Your task to perform on an android device: turn off improve location accuracy Image 0: 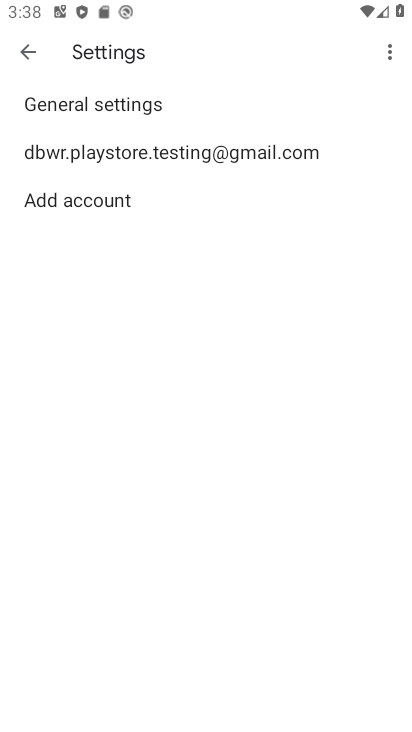
Step 0: press home button
Your task to perform on an android device: turn off improve location accuracy Image 1: 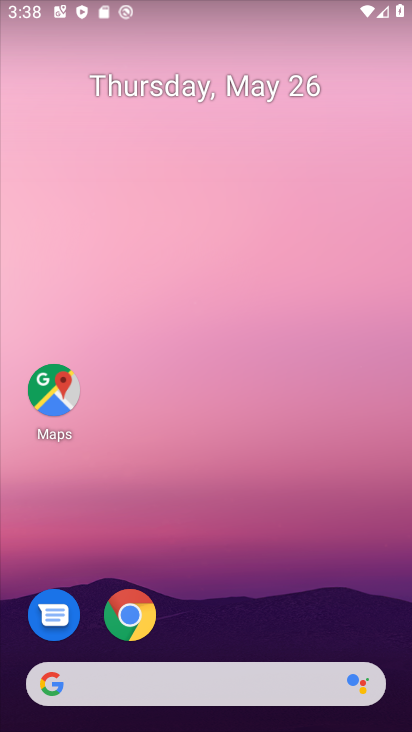
Step 1: drag from (347, 621) to (325, 5)
Your task to perform on an android device: turn off improve location accuracy Image 2: 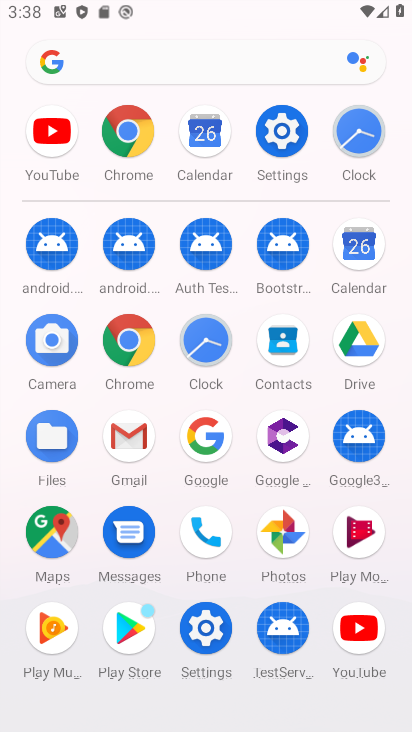
Step 2: click (276, 154)
Your task to perform on an android device: turn off improve location accuracy Image 3: 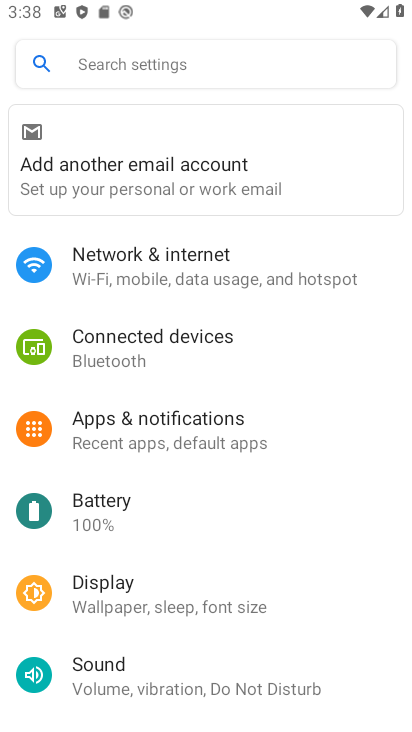
Step 3: drag from (238, 600) to (214, 385)
Your task to perform on an android device: turn off improve location accuracy Image 4: 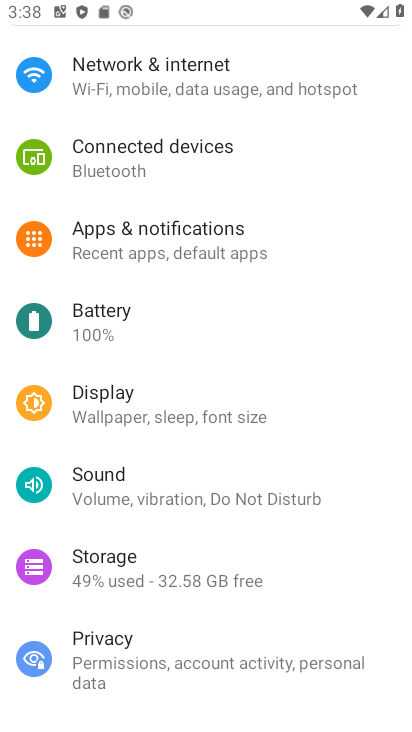
Step 4: drag from (183, 637) to (147, 340)
Your task to perform on an android device: turn off improve location accuracy Image 5: 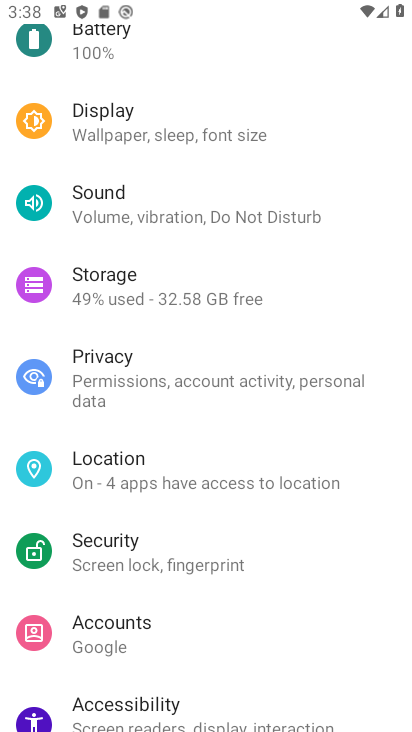
Step 5: click (118, 467)
Your task to perform on an android device: turn off improve location accuracy Image 6: 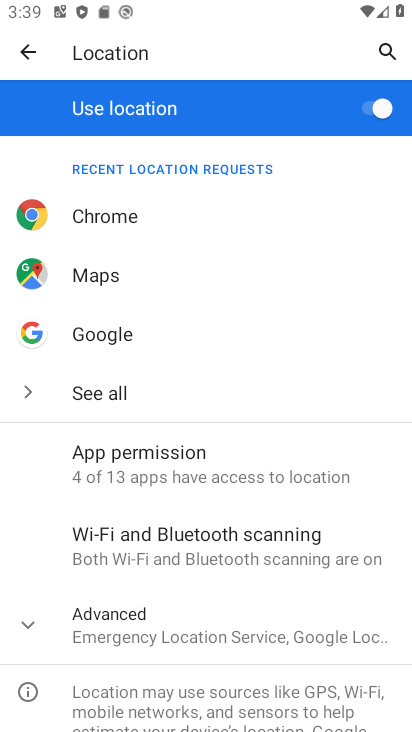
Step 6: click (220, 642)
Your task to perform on an android device: turn off improve location accuracy Image 7: 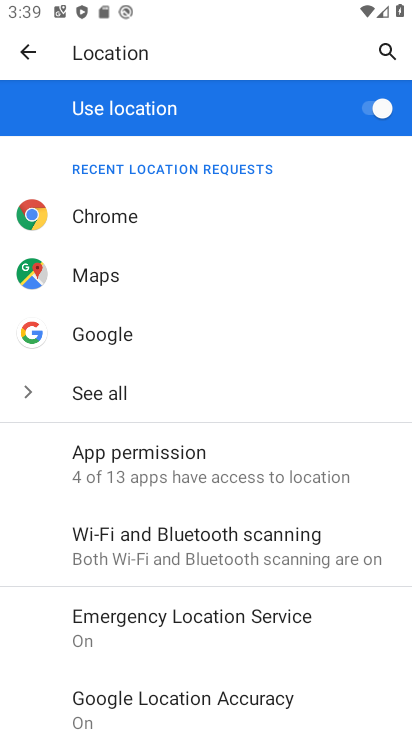
Step 7: click (230, 705)
Your task to perform on an android device: turn off improve location accuracy Image 8: 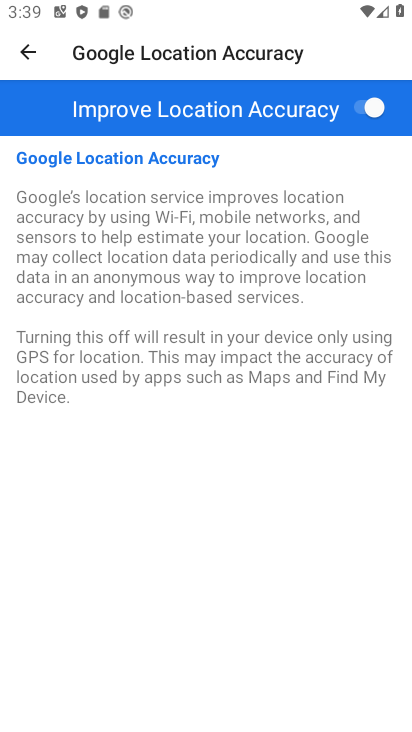
Step 8: click (362, 107)
Your task to perform on an android device: turn off improve location accuracy Image 9: 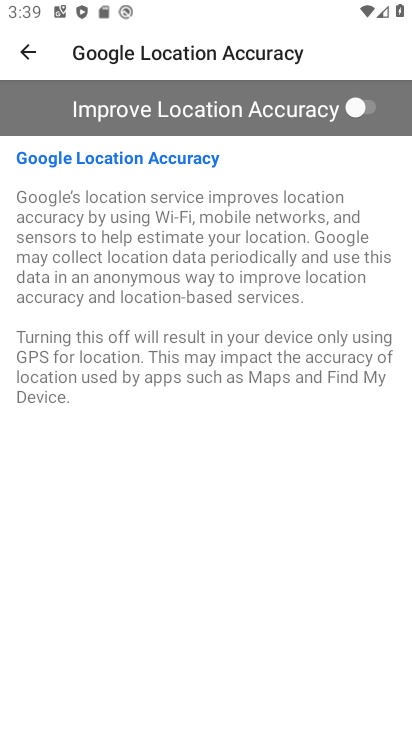
Step 9: task complete